Your task to perform on an android device: open a bookmark in the chrome app Image 0: 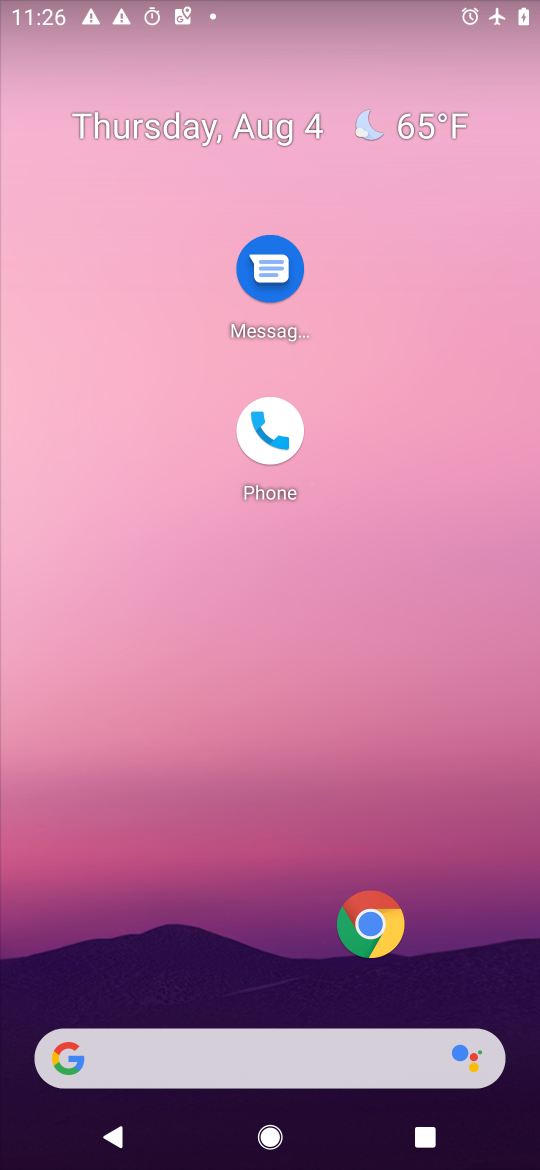
Step 0: drag from (284, 886) to (419, 261)
Your task to perform on an android device: open a bookmark in the chrome app Image 1: 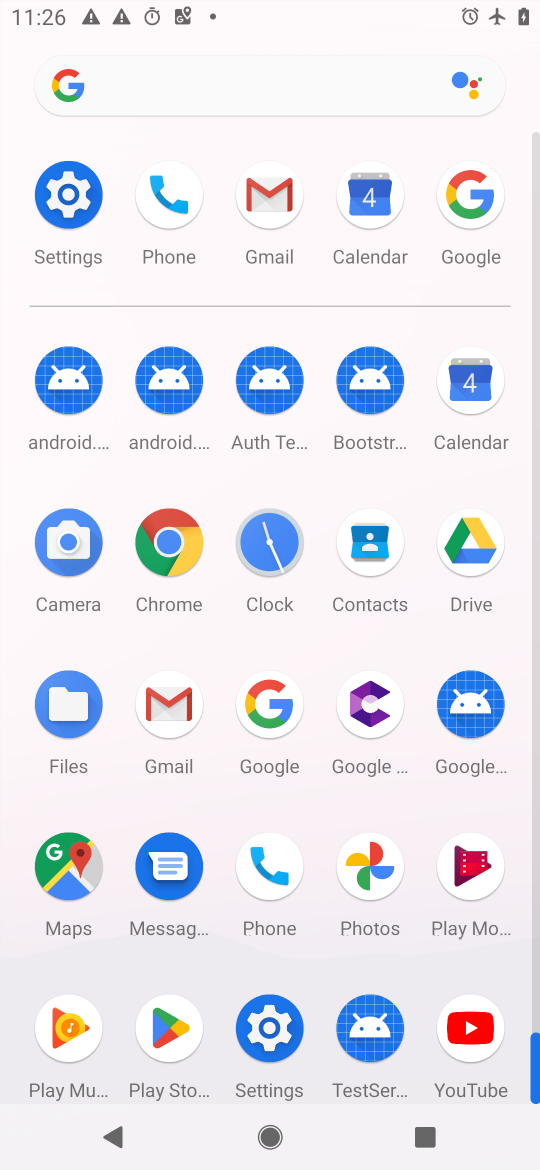
Step 1: click (176, 541)
Your task to perform on an android device: open a bookmark in the chrome app Image 2: 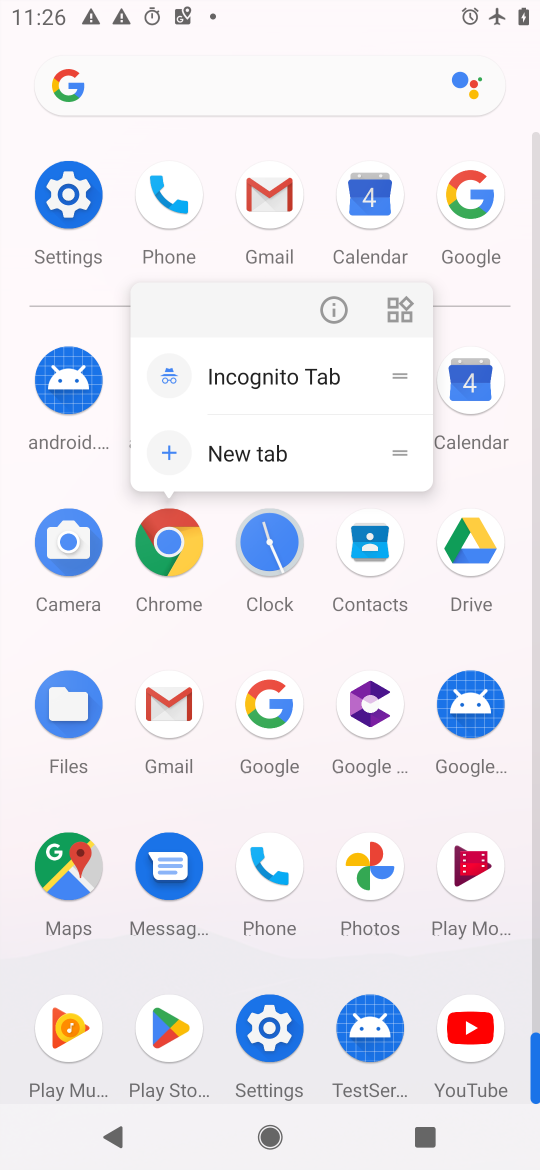
Step 2: click (334, 295)
Your task to perform on an android device: open a bookmark in the chrome app Image 3: 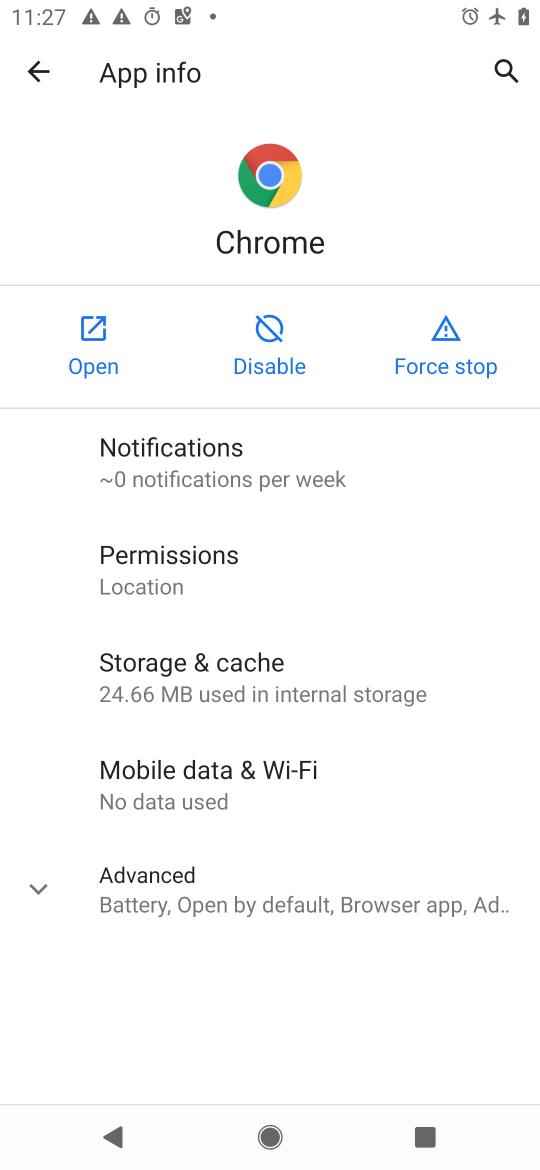
Step 3: click (79, 338)
Your task to perform on an android device: open a bookmark in the chrome app Image 4: 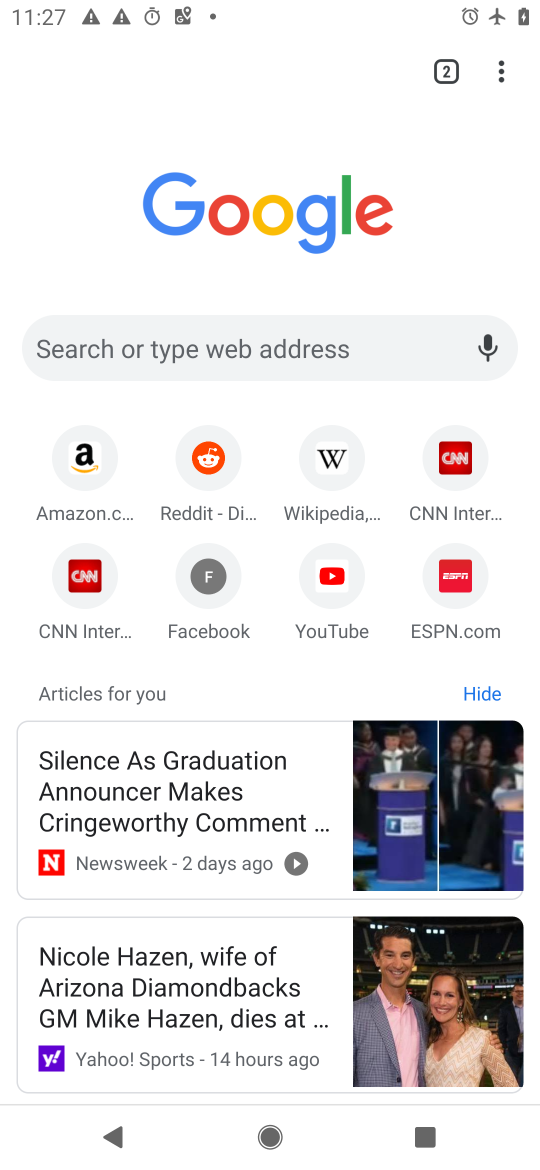
Step 4: task complete